Your task to perform on an android device: toggle notification dots Image 0: 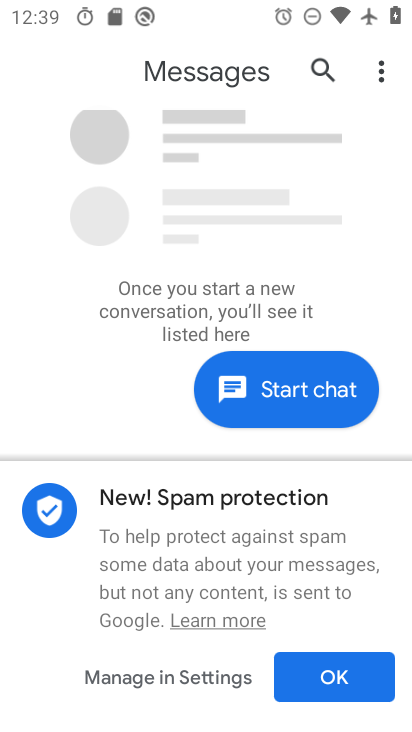
Step 0: press home button
Your task to perform on an android device: toggle notification dots Image 1: 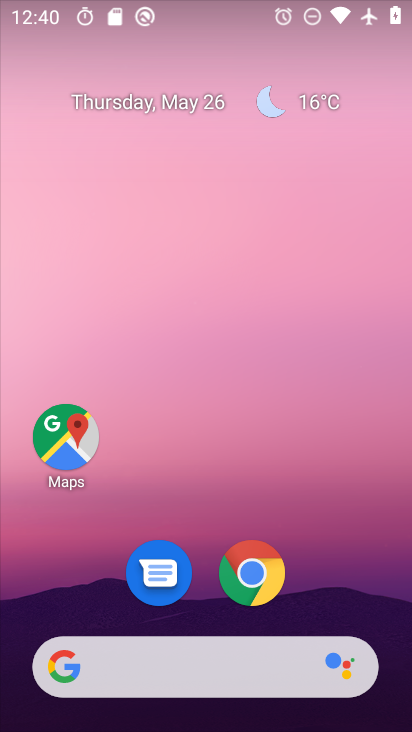
Step 1: drag from (364, 598) to (338, 4)
Your task to perform on an android device: toggle notification dots Image 2: 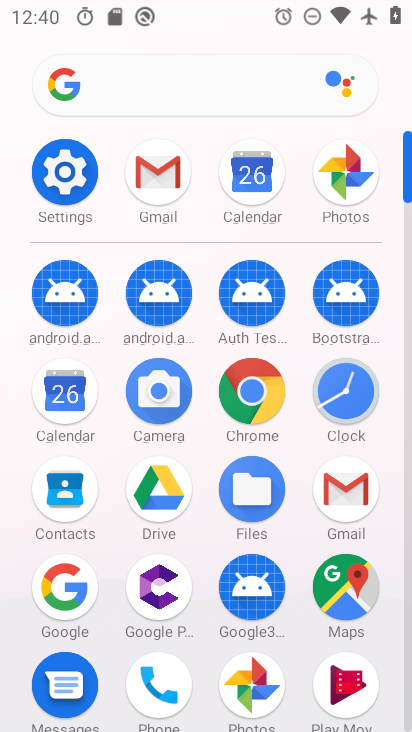
Step 2: click (69, 174)
Your task to perform on an android device: toggle notification dots Image 3: 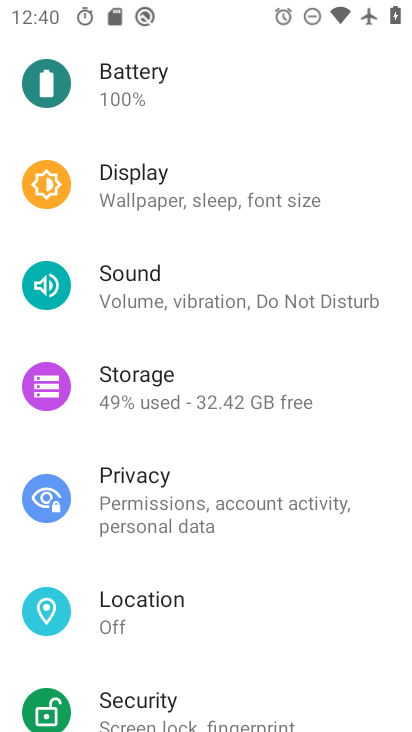
Step 3: drag from (312, 319) to (331, 457)
Your task to perform on an android device: toggle notification dots Image 4: 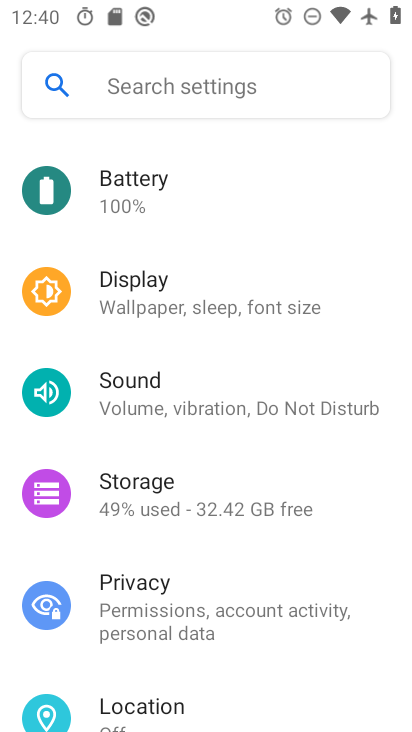
Step 4: drag from (278, 259) to (304, 510)
Your task to perform on an android device: toggle notification dots Image 5: 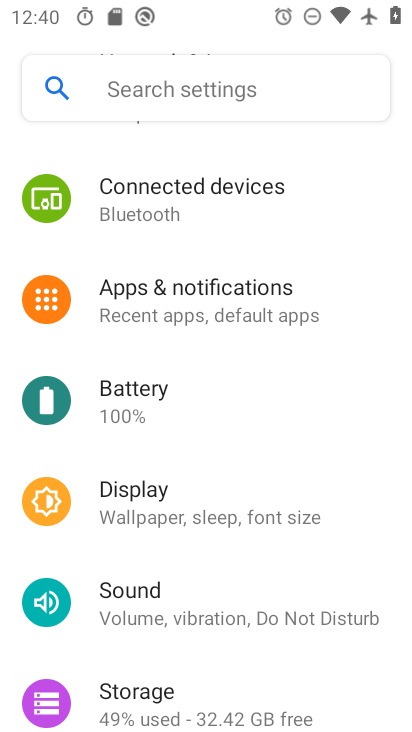
Step 5: click (203, 298)
Your task to perform on an android device: toggle notification dots Image 6: 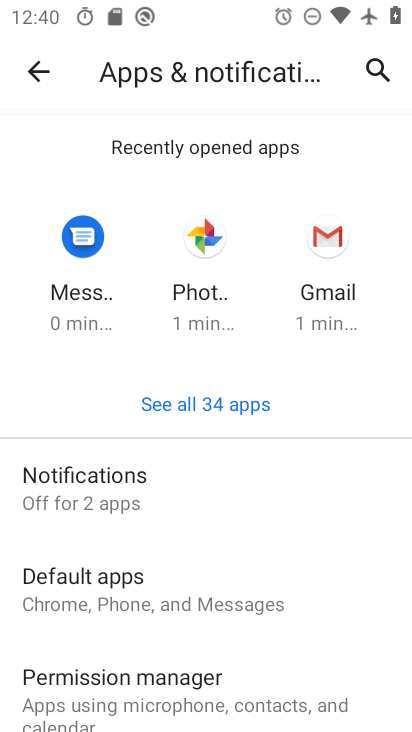
Step 6: click (76, 489)
Your task to perform on an android device: toggle notification dots Image 7: 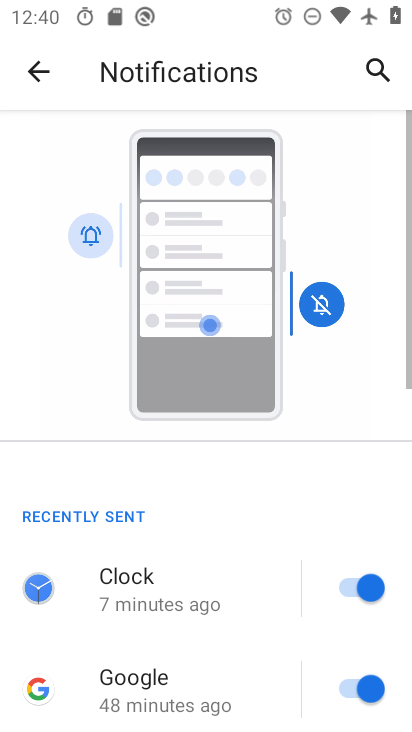
Step 7: drag from (246, 587) to (277, 40)
Your task to perform on an android device: toggle notification dots Image 8: 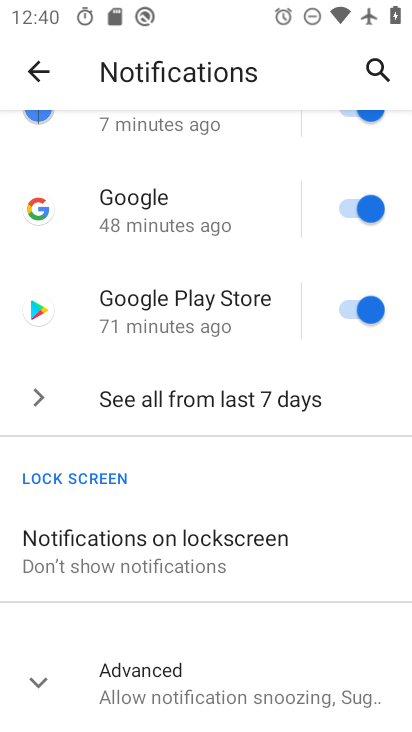
Step 8: drag from (181, 594) to (209, 260)
Your task to perform on an android device: toggle notification dots Image 9: 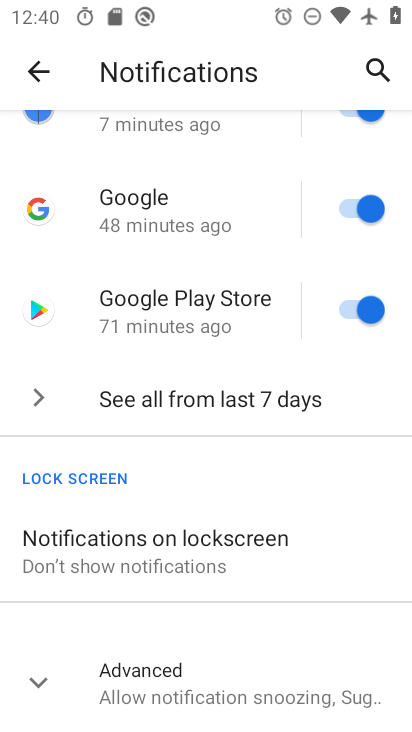
Step 9: click (35, 688)
Your task to perform on an android device: toggle notification dots Image 10: 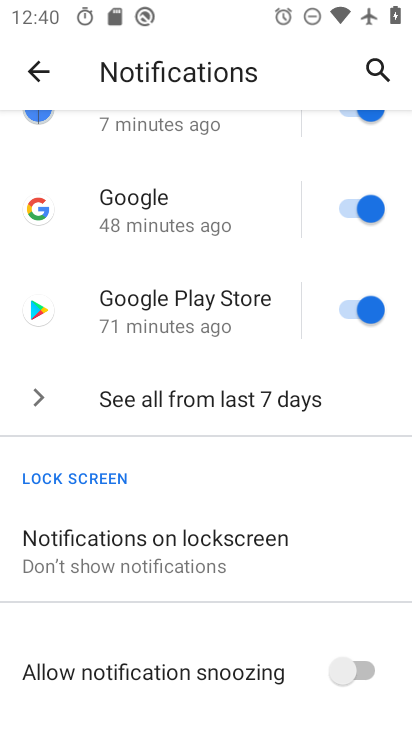
Step 10: drag from (171, 587) to (189, 172)
Your task to perform on an android device: toggle notification dots Image 11: 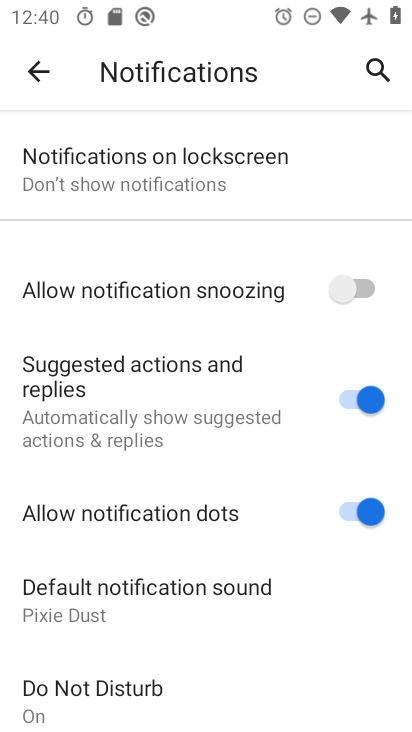
Step 11: click (367, 514)
Your task to perform on an android device: toggle notification dots Image 12: 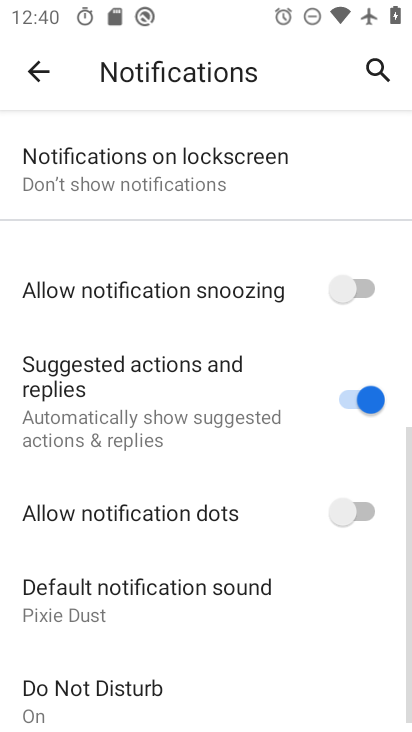
Step 12: task complete